Your task to perform on an android device: When is my next meeting? Image 0: 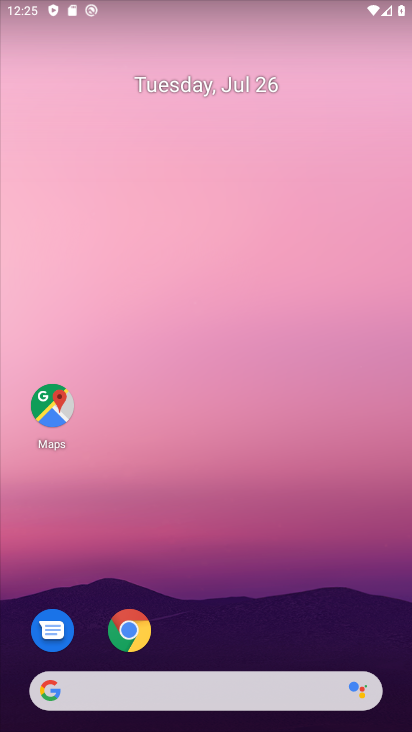
Step 0: drag from (377, 647) to (325, 165)
Your task to perform on an android device: When is my next meeting? Image 1: 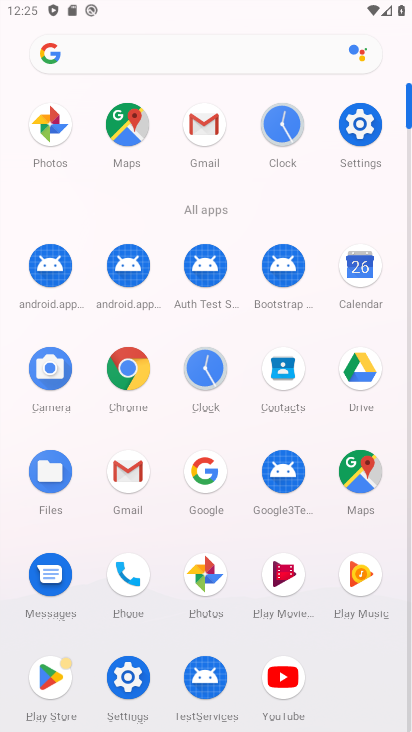
Step 1: click (357, 254)
Your task to perform on an android device: When is my next meeting? Image 2: 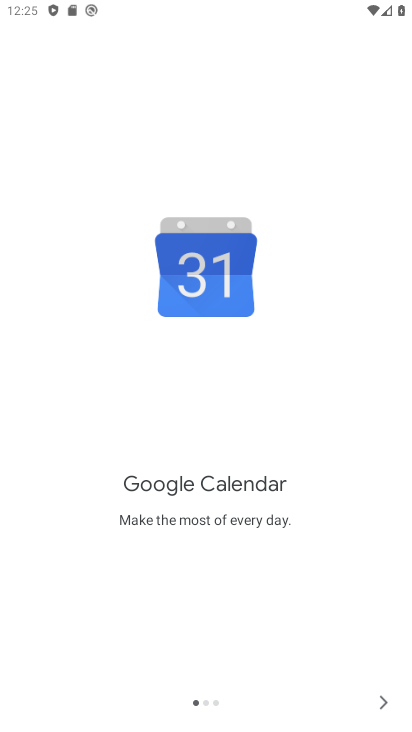
Step 2: click (390, 700)
Your task to perform on an android device: When is my next meeting? Image 3: 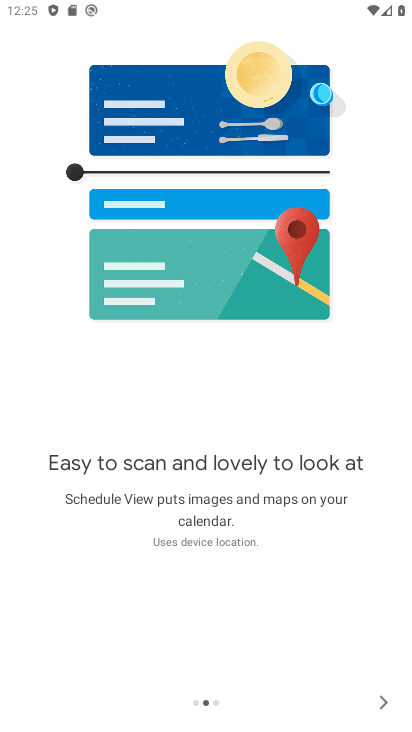
Step 3: click (385, 702)
Your task to perform on an android device: When is my next meeting? Image 4: 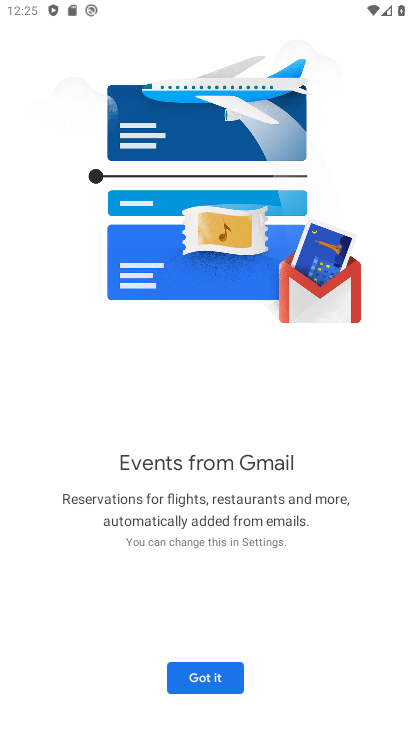
Step 4: click (196, 684)
Your task to perform on an android device: When is my next meeting? Image 5: 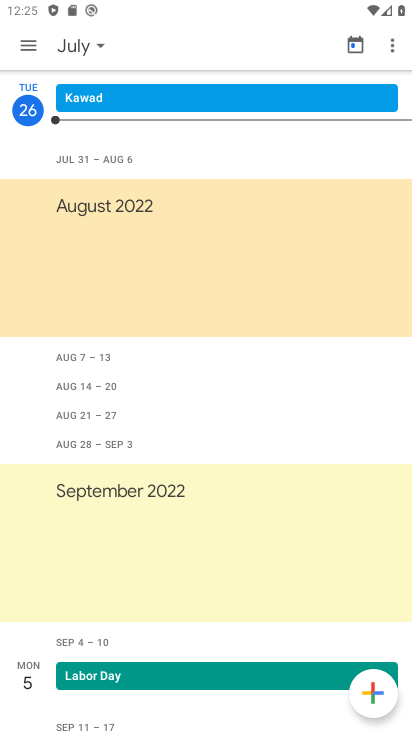
Step 5: task complete